Your task to perform on an android device: delete the emails in spam in the gmail app Image 0: 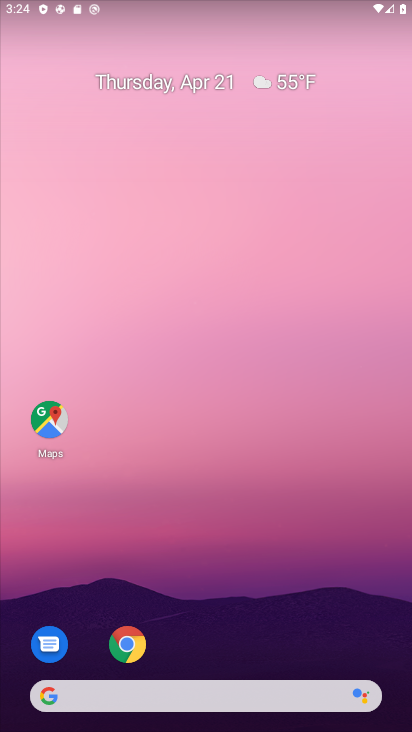
Step 0: drag from (210, 725) to (215, 12)
Your task to perform on an android device: delete the emails in spam in the gmail app Image 1: 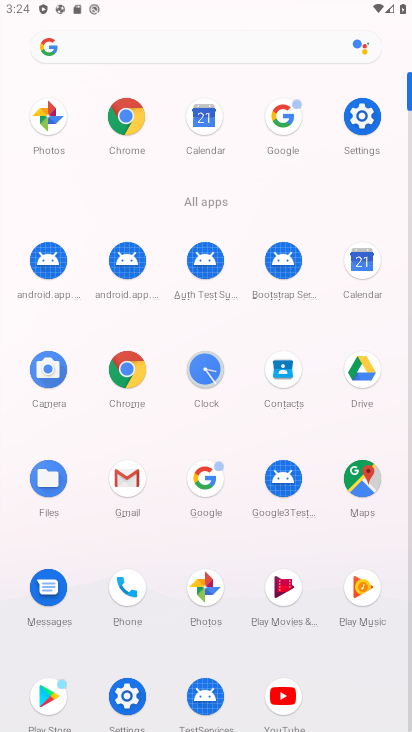
Step 1: click (123, 477)
Your task to perform on an android device: delete the emails in spam in the gmail app Image 2: 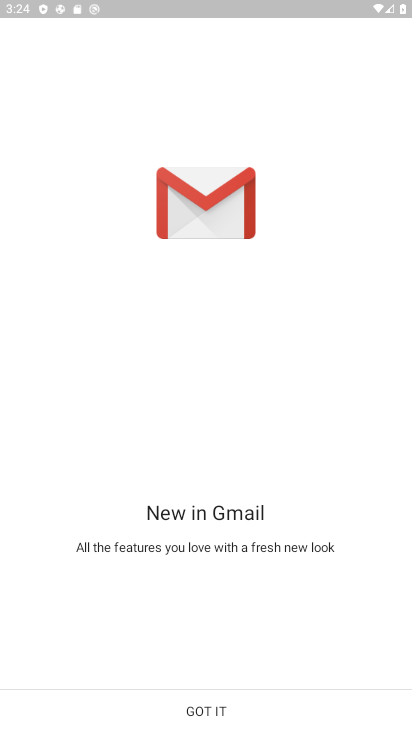
Step 2: click (201, 708)
Your task to perform on an android device: delete the emails in spam in the gmail app Image 3: 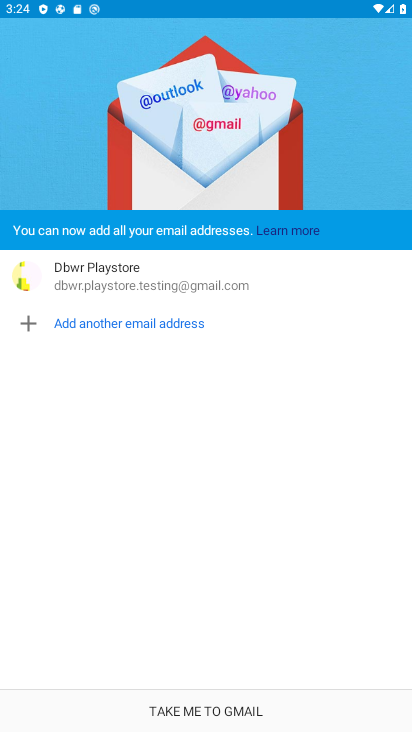
Step 3: click (209, 707)
Your task to perform on an android device: delete the emails in spam in the gmail app Image 4: 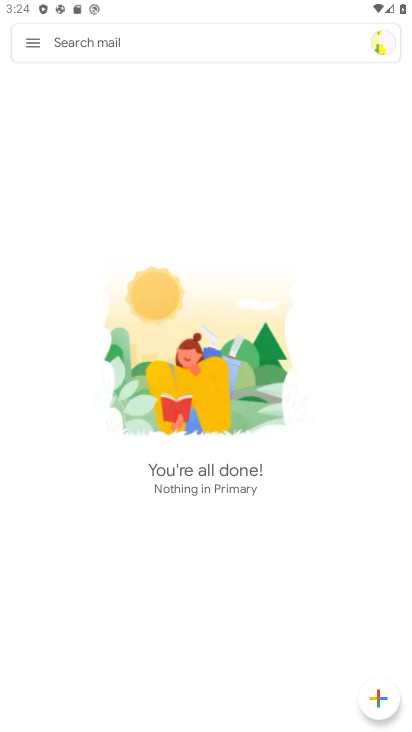
Step 4: click (31, 42)
Your task to perform on an android device: delete the emails in spam in the gmail app Image 5: 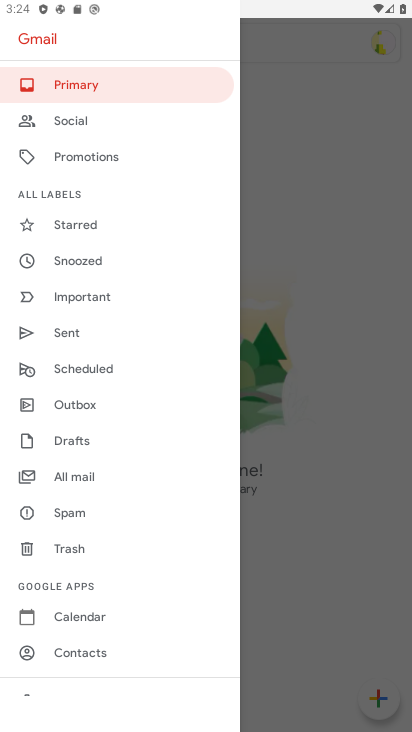
Step 5: click (68, 510)
Your task to perform on an android device: delete the emails in spam in the gmail app Image 6: 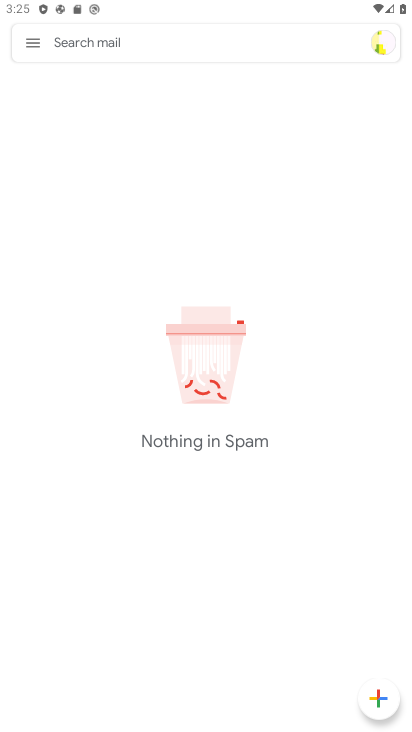
Step 6: task complete